Your task to perform on an android device: Open calendar and show me the fourth week of next month Image 0: 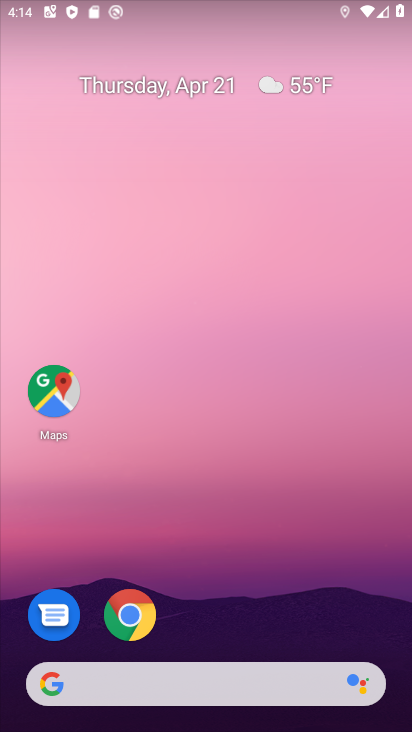
Step 0: drag from (233, 609) to (250, 114)
Your task to perform on an android device: Open calendar and show me the fourth week of next month Image 1: 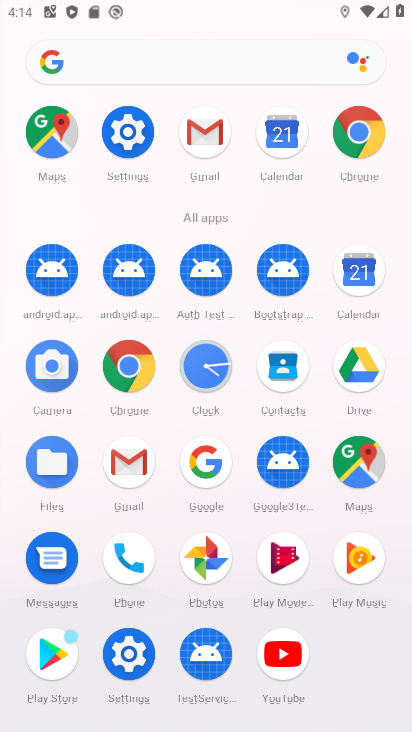
Step 1: click (369, 269)
Your task to perform on an android device: Open calendar and show me the fourth week of next month Image 2: 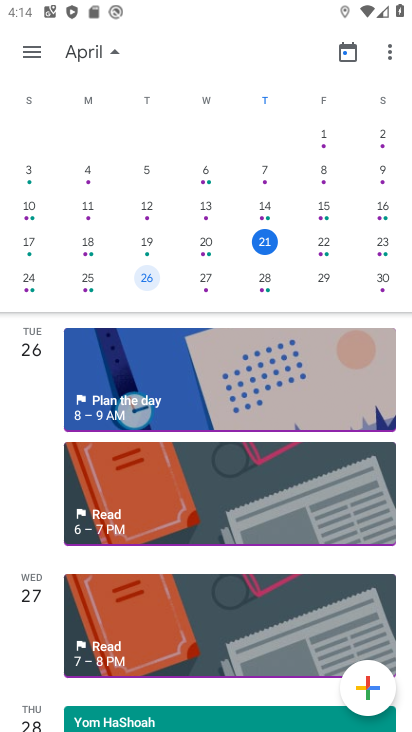
Step 2: drag from (258, 195) to (81, 152)
Your task to perform on an android device: Open calendar and show me the fourth week of next month Image 3: 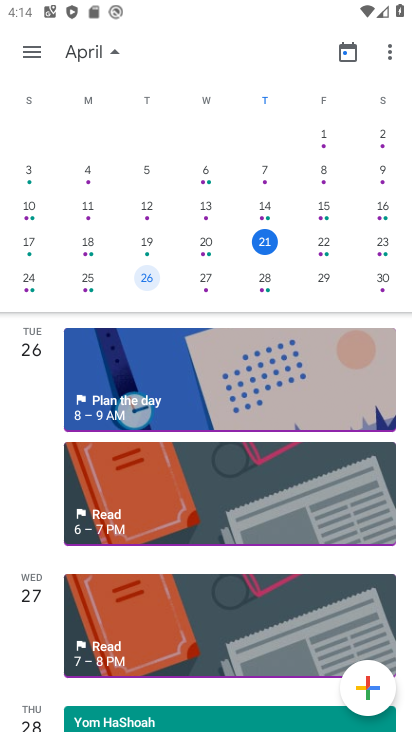
Step 3: click (7, 189)
Your task to perform on an android device: Open calendar and show me the fourth week of next month Image 4: 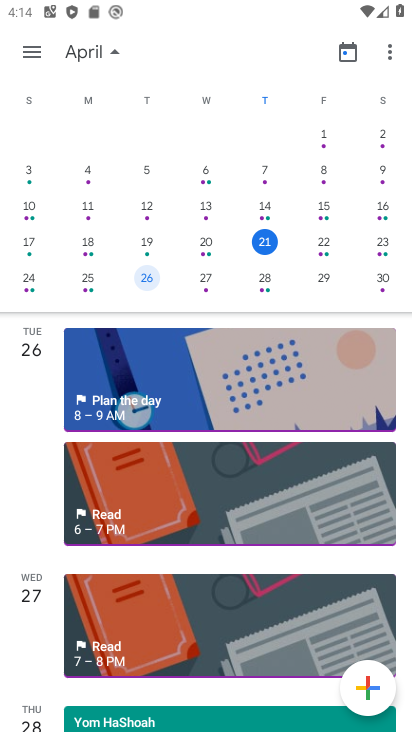
Step 4: drag from (344, 186) to (63, 174)
Your task to perform on an android device: Open calendar and show me the fourth week of next month Image 5: 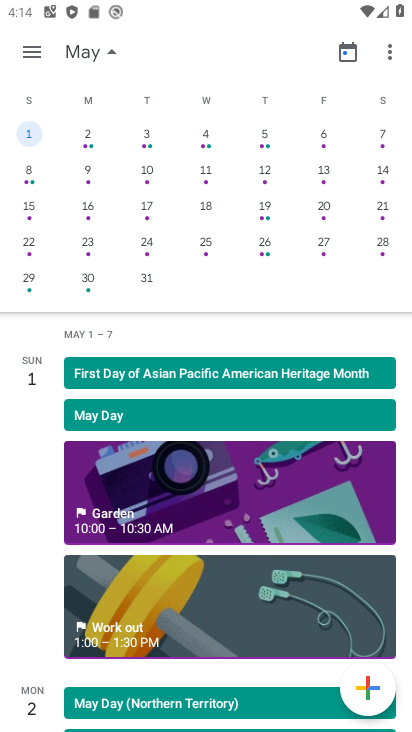
Step 5: click (89, 235)
Your task to perform on an android device: Open calendar and show me the fourth week of next month Image 6: 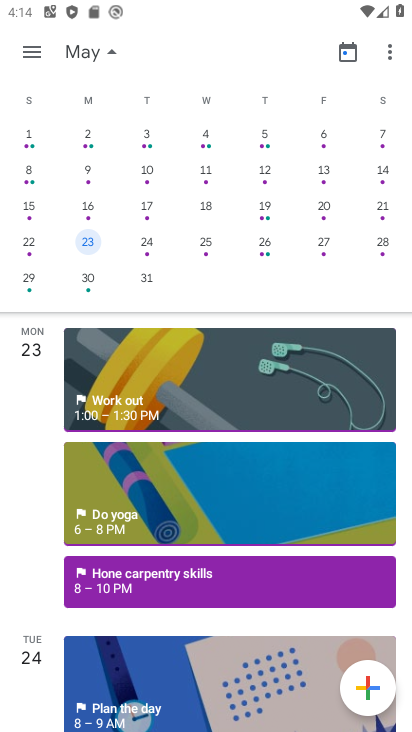
Step 6: task complete